Your task to perform on an android device: see tabs open on other devices in the chrome app Image 0: 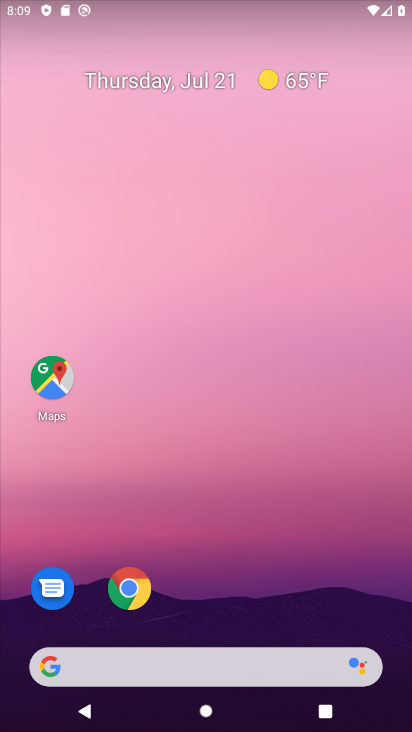
Step 0: click (128, 583)
Your task to perform on an android device: see tabs open on other devices in the chrome app Image 1: 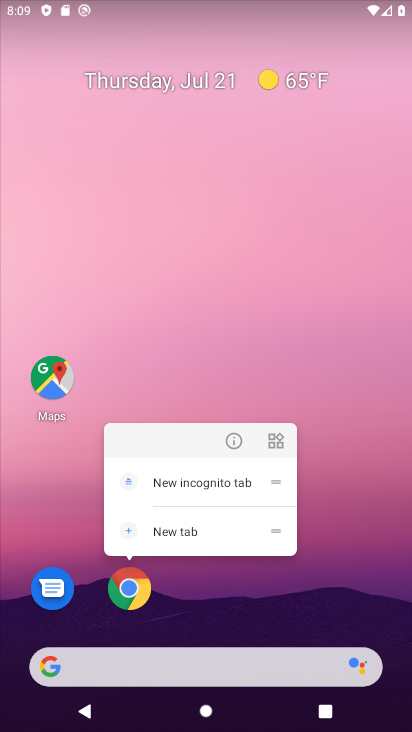
Step 1: click (114, 593)
Your task to perform on an android device: see tabs open on other devices in the chrome app Image 2: 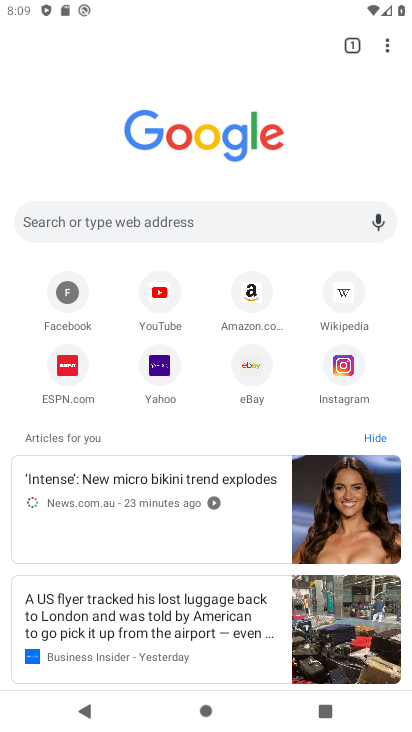
Step 2: click (350, 36)
Your task to perform on an android device: see tabs open on other devices in the chrome app Image 3: 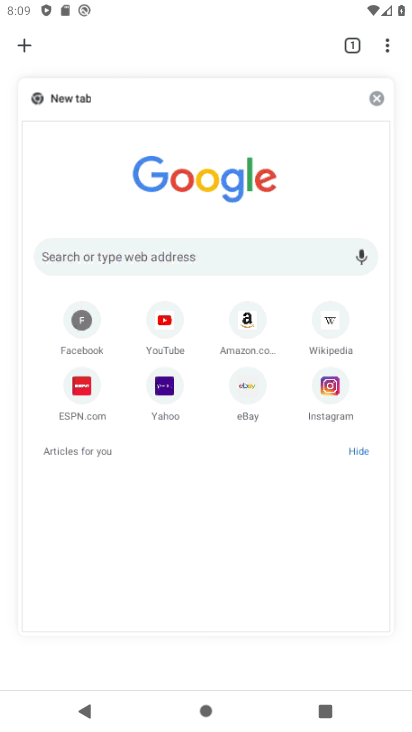
Step 3: task complete